Your task to perform on an android device: Add "usb-c to usb-b" to the cart on costco Image 0: 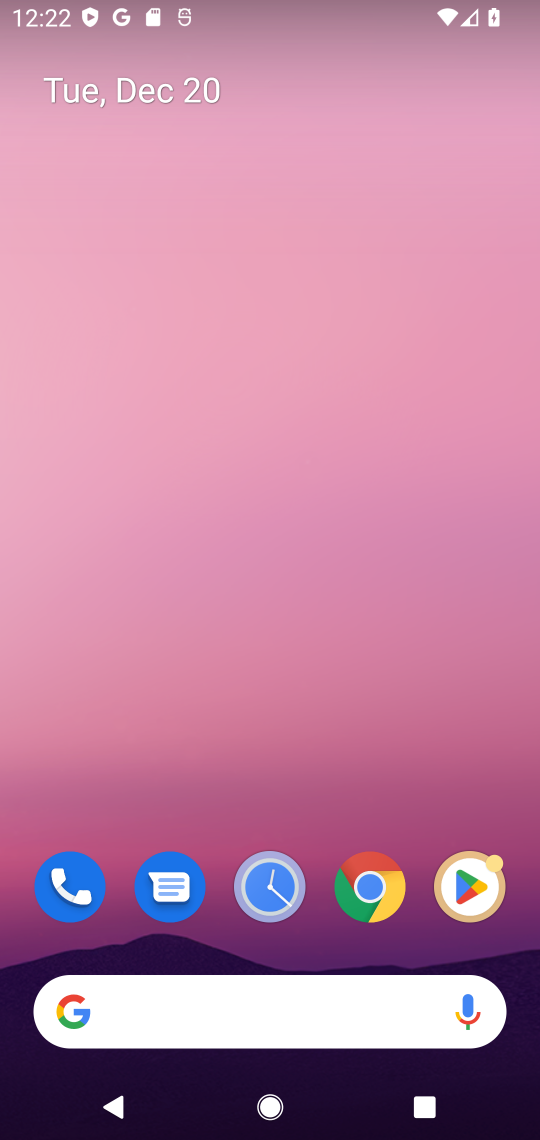
Step 0: click (354, 879)
Your task to perform on an android device: Add "usb-c to usb-b" to the cart on costco Image 1: 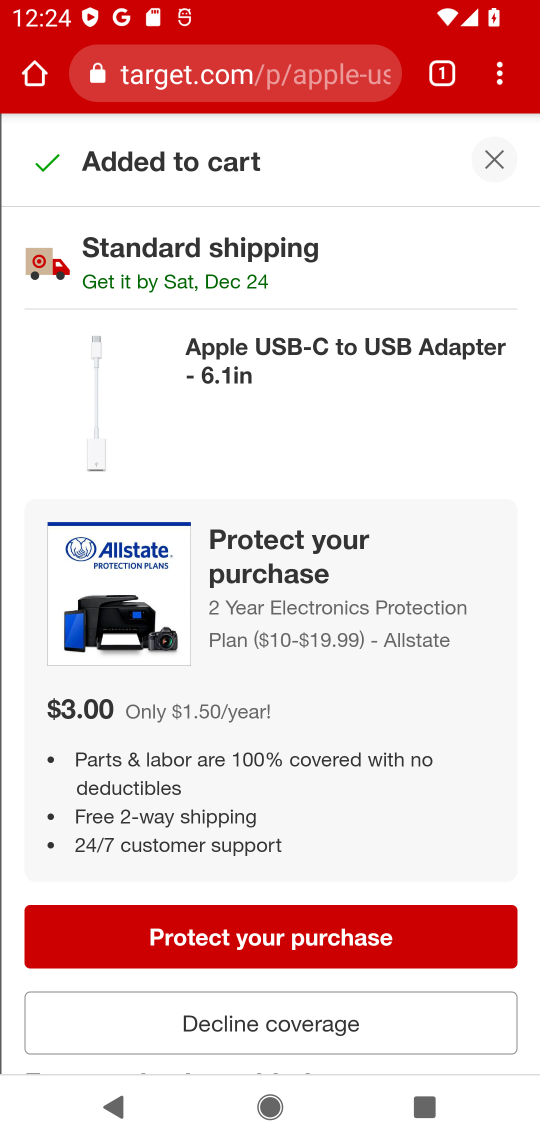
Step 1: task complete